Your task to perform on an android device: Go to Reddit.com Image 0: 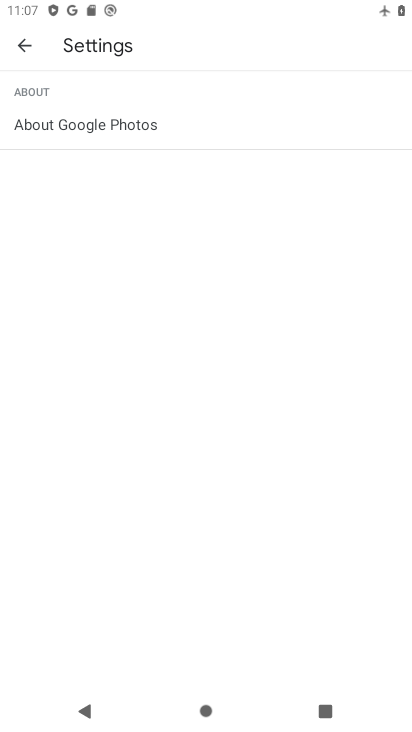
Step 0: press home button
Your task to perform on an android device: Go to Reddit.com Image 1: 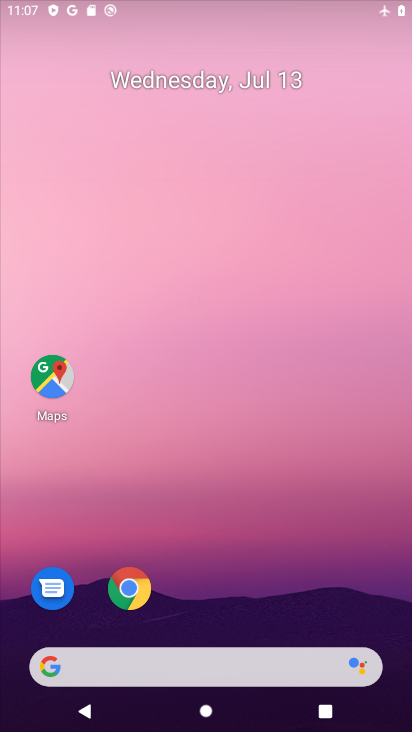
Step 1: drag from (230, 632) to (241, 83)
Your task to perform on an android device: Go to Reddit.com Image 2: 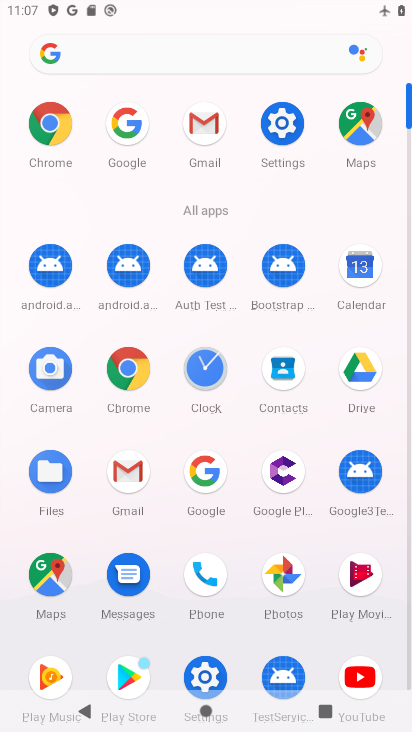
Step 2: click (207, 473)
Your task to perform on an android device: Go to Reddit.com Image 3: 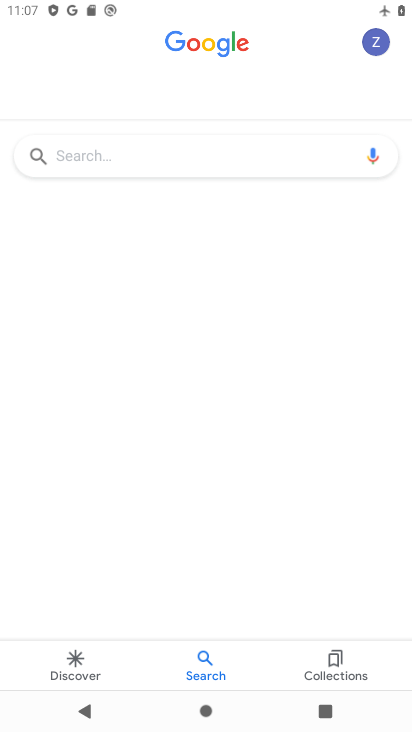
Step 3: click (236, 151)
Your task to perform on an android device: Go to Reddit.com Image 4: 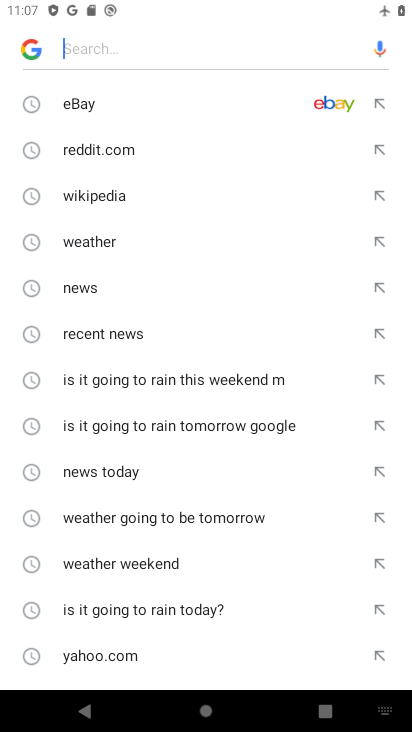
Step 4: type "reddit.com"
Your task to perform on an android device: Go to Reddit.com Image 5: 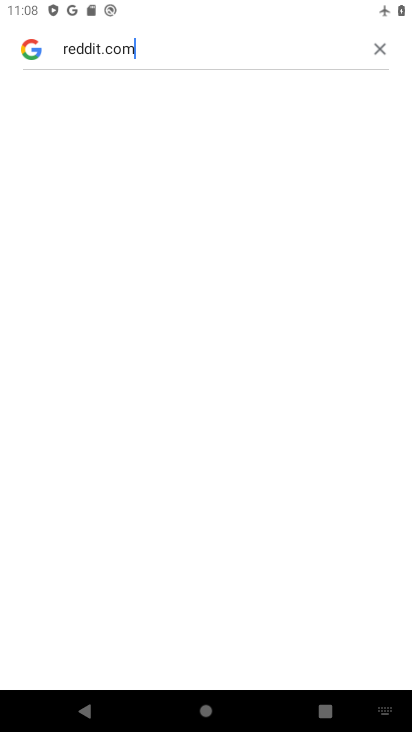
Step 5: task complete